Your task to perform on an android device: check data usage Image 0: 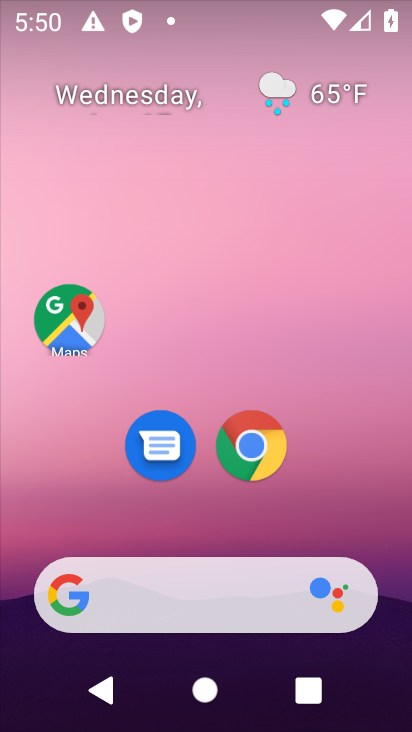
Step 0: drag from (169, 519) to (187, 190)
Your task to perform on an android device: check data usage Image 1: 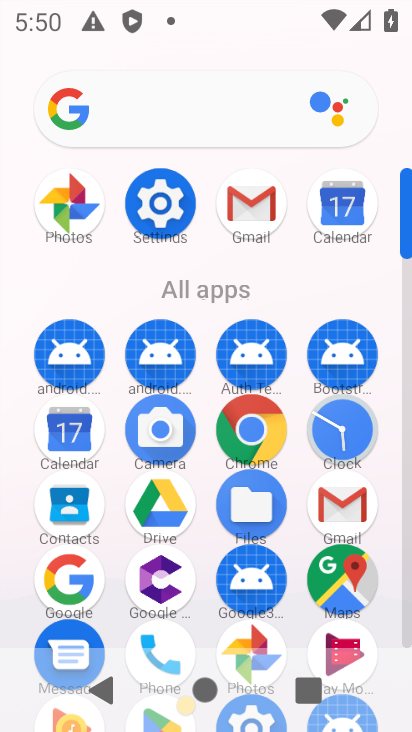
Step 1: click (178, 198)
Your task to perform on an android device: check data usage Image 2: 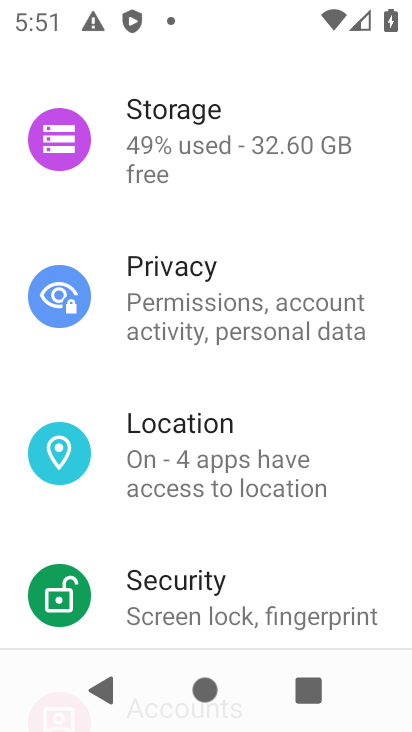
Step 2: drag from (210, 194) to (210, 714)
Your task to perform on an android device: check data usage Image 3: 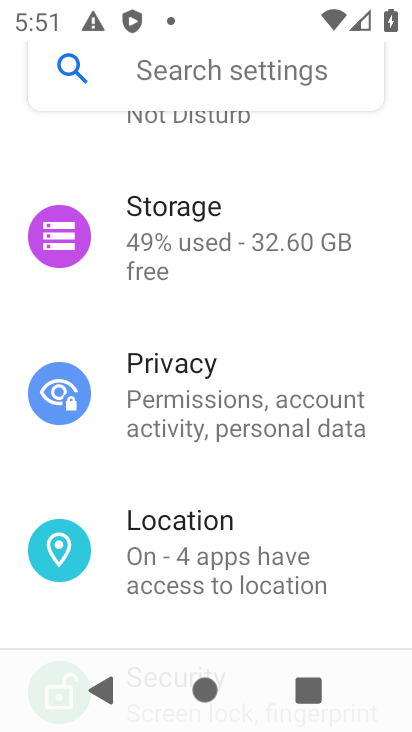
Step 3: drag from (242, 190) to (254, 532)
Your task to perform on an android device: check data usage Image 4: 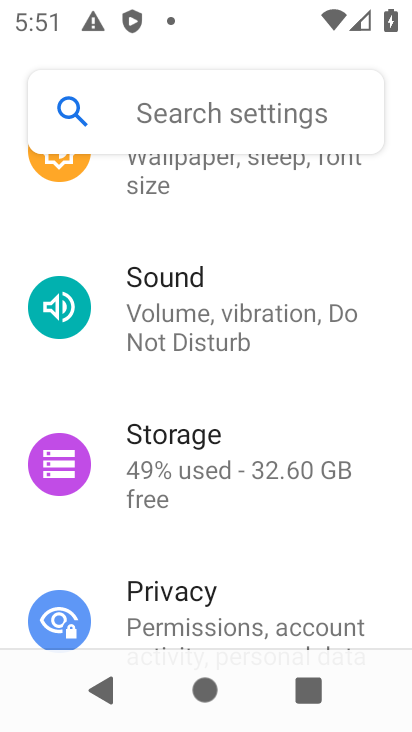
Step 4: drag from (276, 280) to (281, 512)
Your task to perform on an android device: check data usage Image 5: 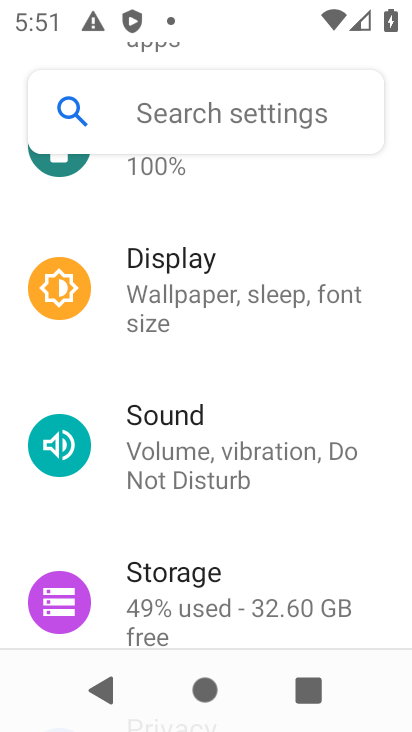
Step 5: drag from (228, 215) to (257, 471)
Your task to perform on an android device: check data usage Image 6: 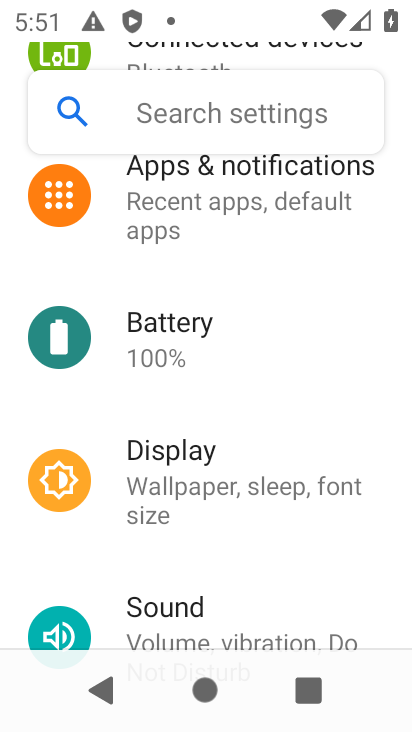
Step 6: drag from (268, 246) to (292, 527)
Your task to perform on an android device: check data usage Image 7: 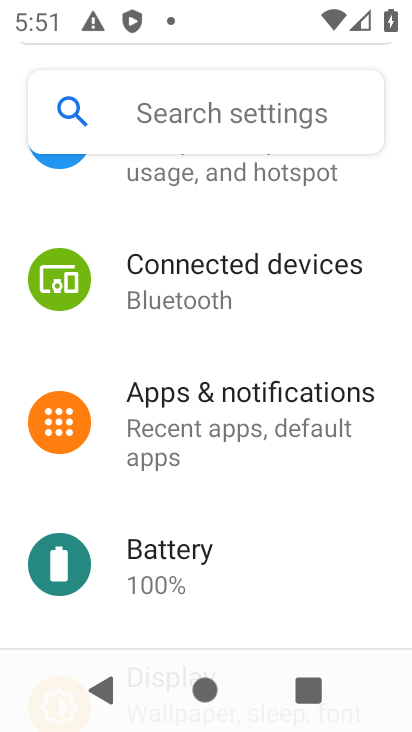
Step 7: drag from (269, 222) to (300, 434)
Your task to perform on an android device: check data usage Image 8: 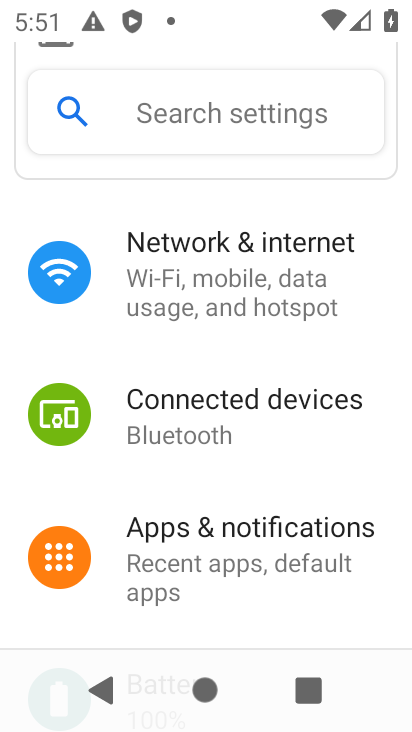
Step 8: click (245, 287)
Your task to perform on an android device: check data usage Image 9: 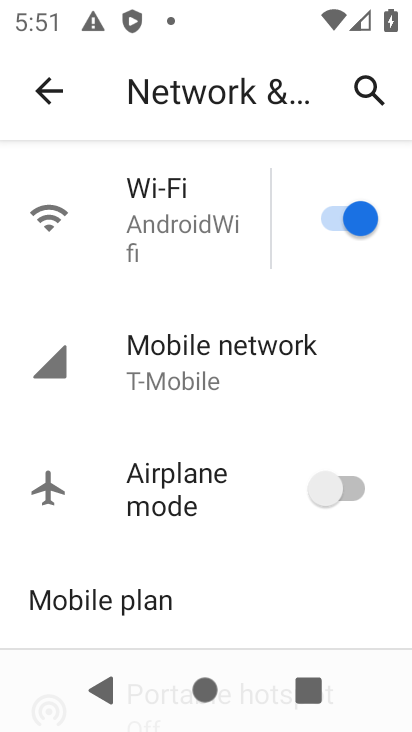
Step 9: click (229, 350)
Your task to perform on an android device: check data usage Image 10: 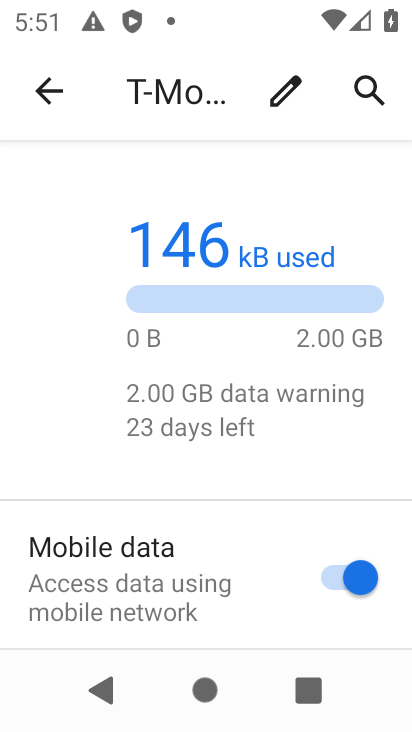
Step 10: drag from (221, 555) to (221, 264)
Your task to perform on an android device: check data usage Image 11: 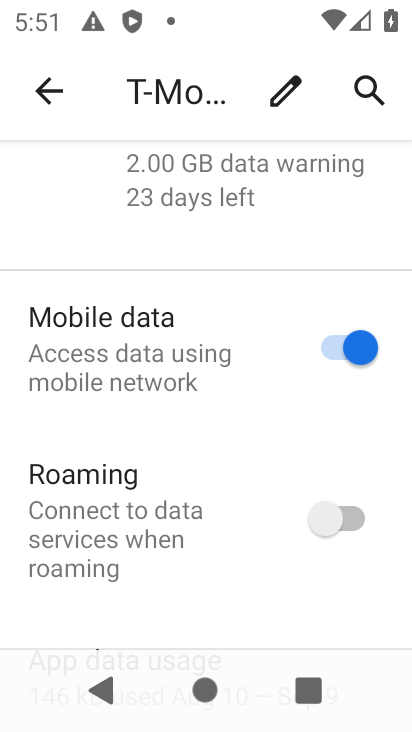
Step 11: drag from (186, 517) to (191, 197)
Your task to perform on an android device: check data usage Image 12: 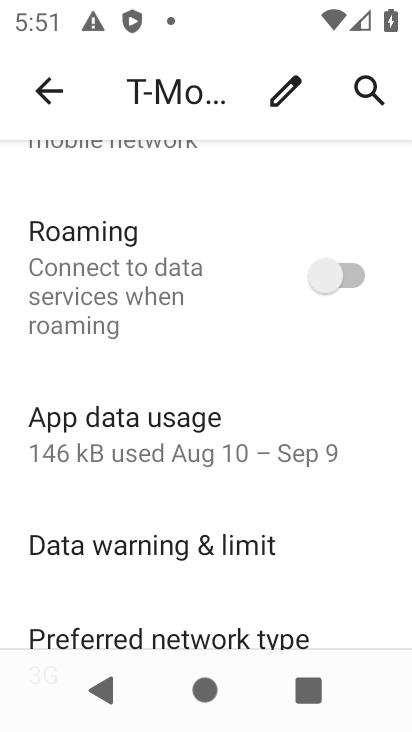
Step 12: click (175, 440)
Your task to perform on an android device: check data usage Image 13: 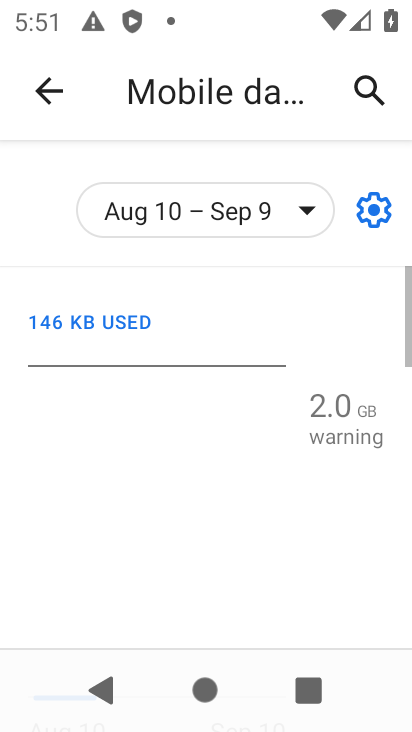
Step 13: task complete